Your task to perform on an android device: When is my next appointment? Image 0: 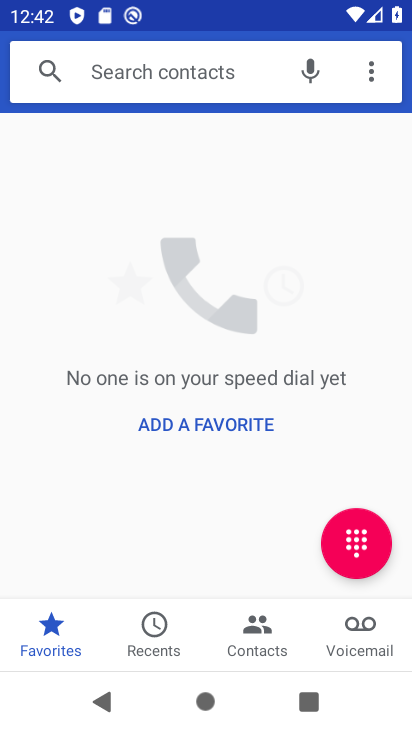
Step 0: press home button
Your task to perform on an android device: When is my next appointment? Image 1: 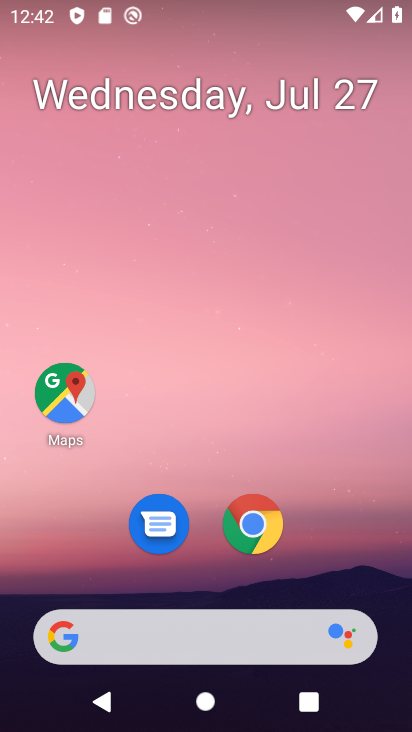
Step 1: drag from (308, 505) to (337, 78)
Your task to perform on an android device: When is my next appointment? Image 2: 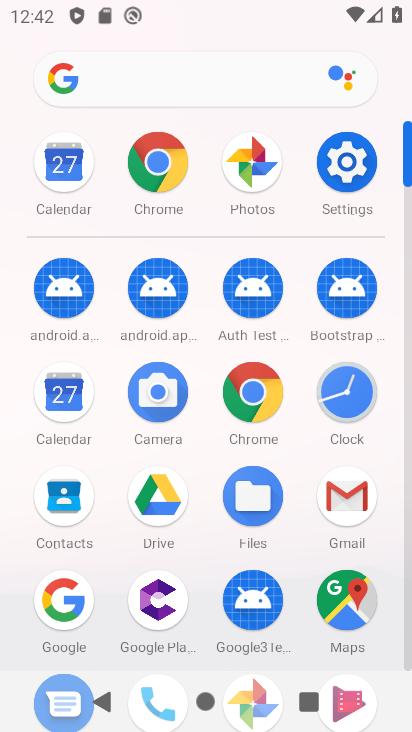
Step 2: click (74, 168)
Your task to perform on an android device: When is my next appointment? Image 3: 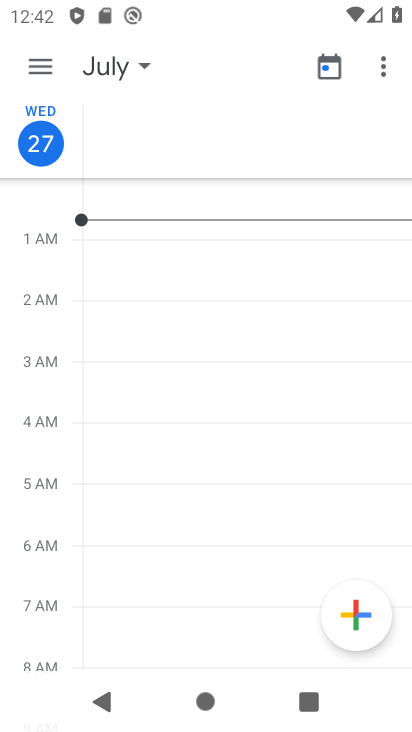
Step 3: click (49, 133)
Your task to perform on an android device: When is my next appointment? Image 4: 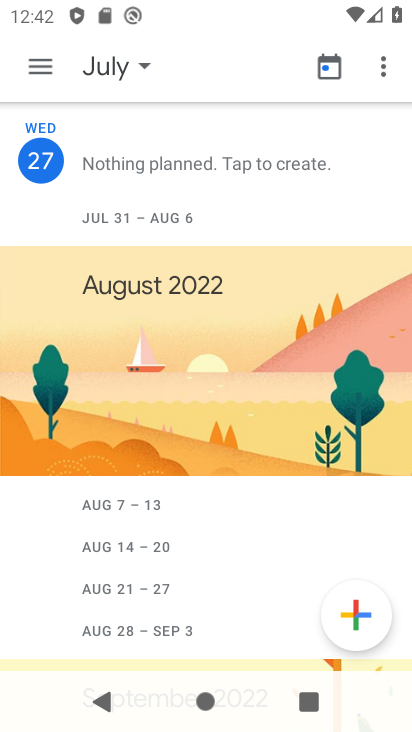
Step 4: task complete